Your task to perform on an android device: empty trash in the gmail app Image 0: 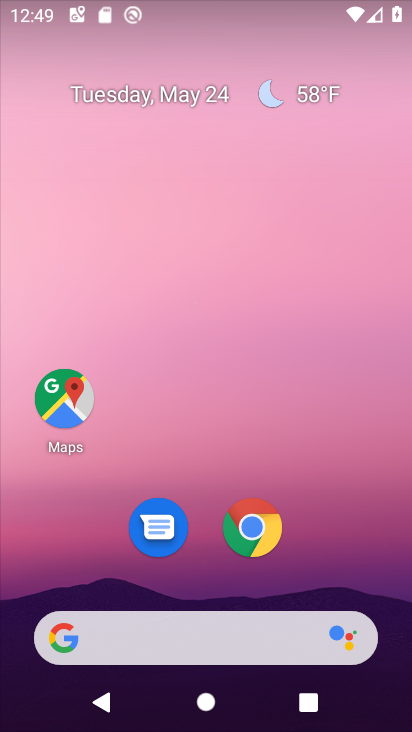
Step 0: drag from (385, 583) to (339, 161)
Your task to perform on an android device: empty trash in the gmail app Image 1: 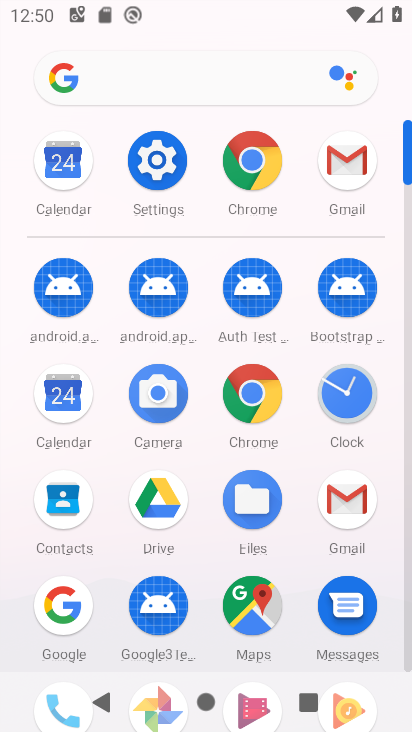
Step 1: click (356, 166)
Your task to perform on an android device: empty trash in the gmail app Image 2: 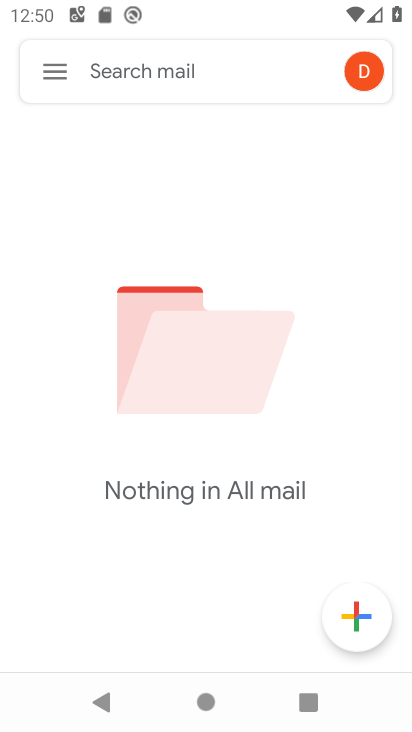
Step 2: click (54, 73)
Your task to perform on an android device: empty trash in the gmail app Image 3: 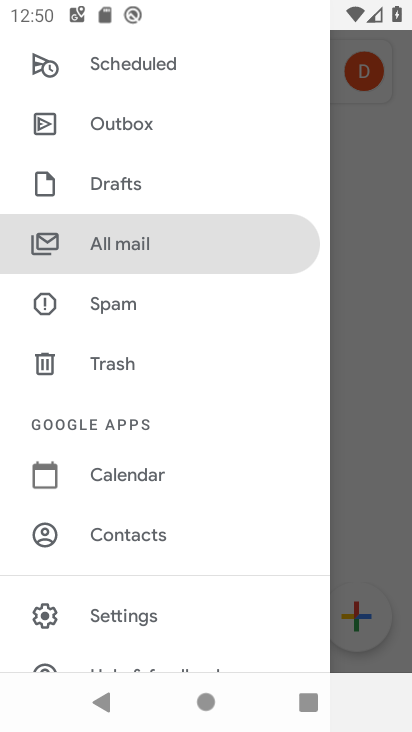
Step 3: click (144, 368)
Your task to perform on an android device: empty trash in the gmail app Image 4: 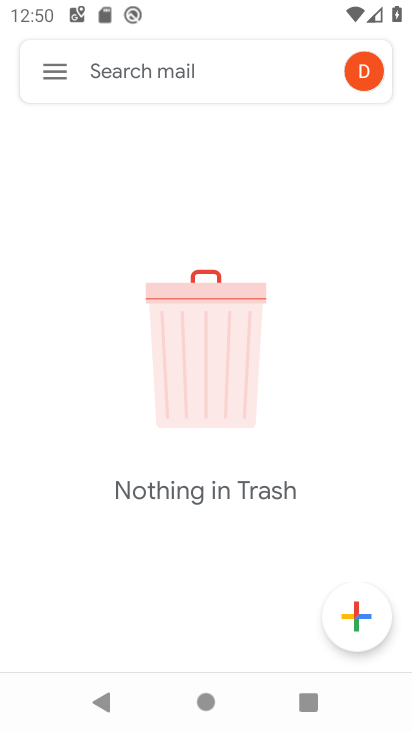
Step 4: task complete